Your task to perform on an android device: Open location settings Image 0: 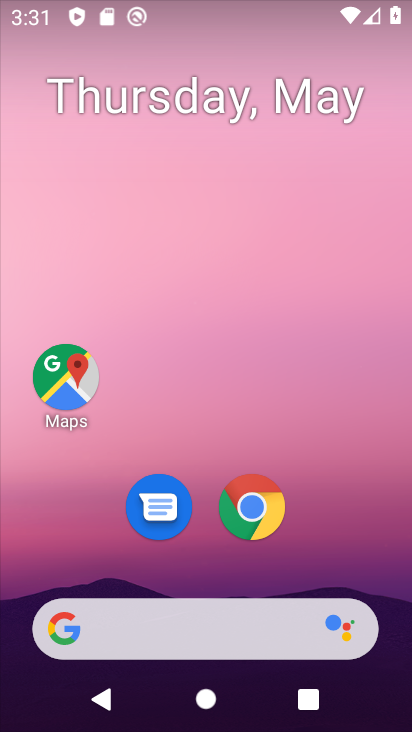
Step 0: drag from (194, 562) to (201, 1)
Your task to perform on an android device: Open location settings Image 1: 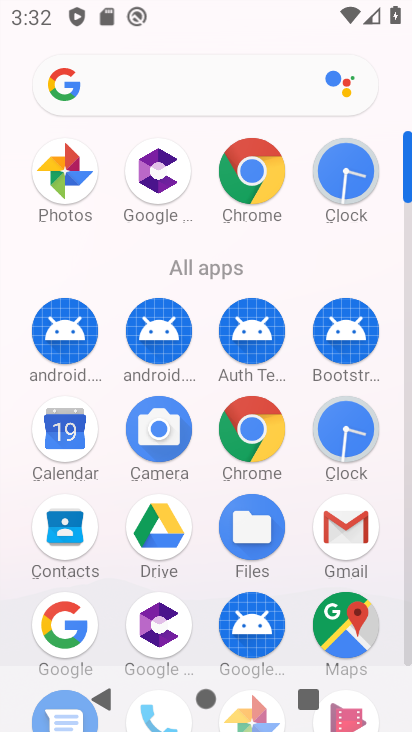
Step 1: drag from (205, 573) to (206, 283)
Your task to perform on an android device: Open location settings Image 2: 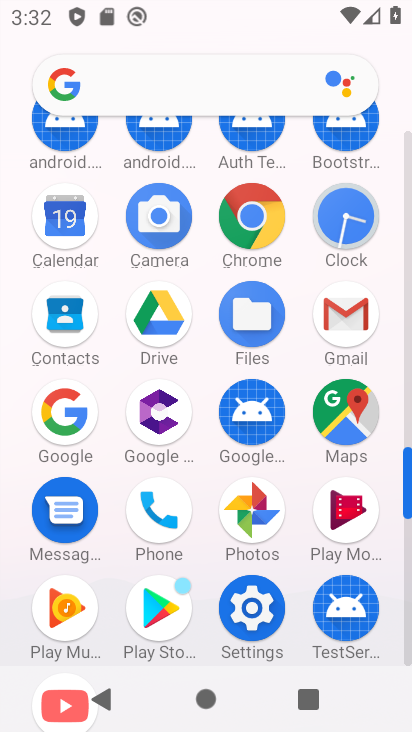
Step 2: click (252, 614)
Your task to perform on an android device: Open location settings Image 3: 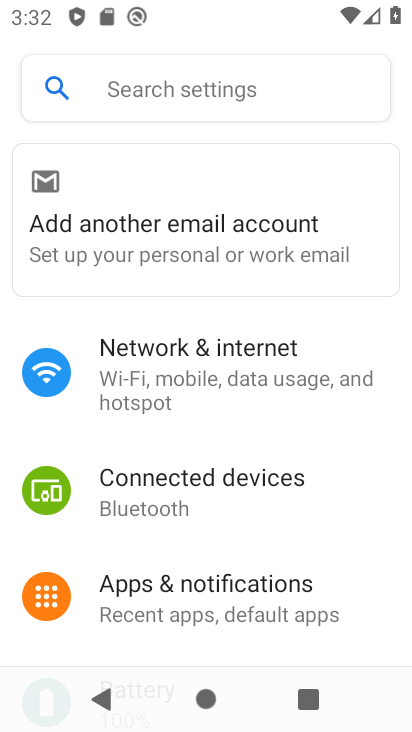
Step 3: drag from (218, 622) to (230, 294)
Your task to perform on an android device: Open location settings Image 4: 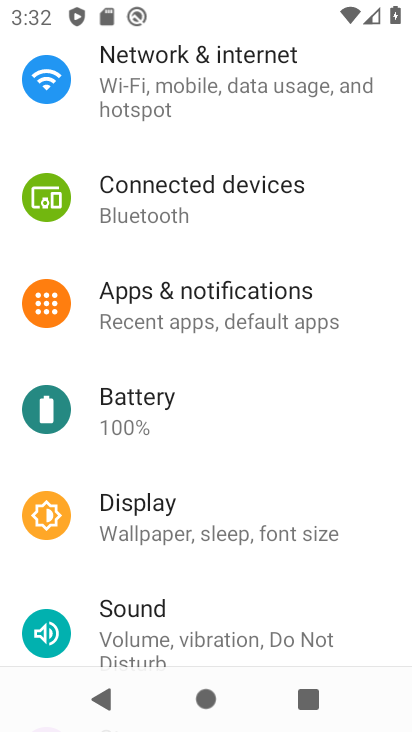
Step 4: drag from (191, 607) to (198, 350)
Your task to perform on an android device: Open location settings Image 5: 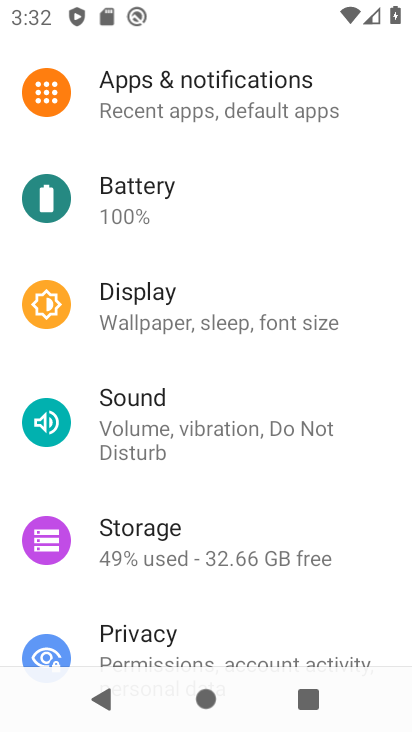
Step 5: drag from (194, 583) to (237, 303)
Your task to perform on an android device: Open location settings Image 6: 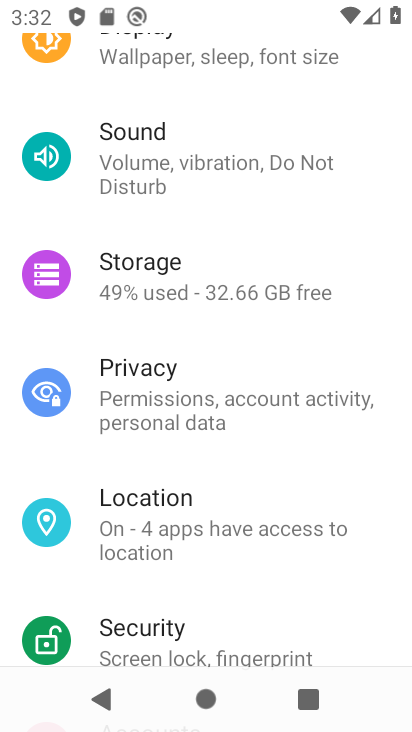
Step 6: click (143, 542)
Your task to perform on an android device: Open location settings Image 7: 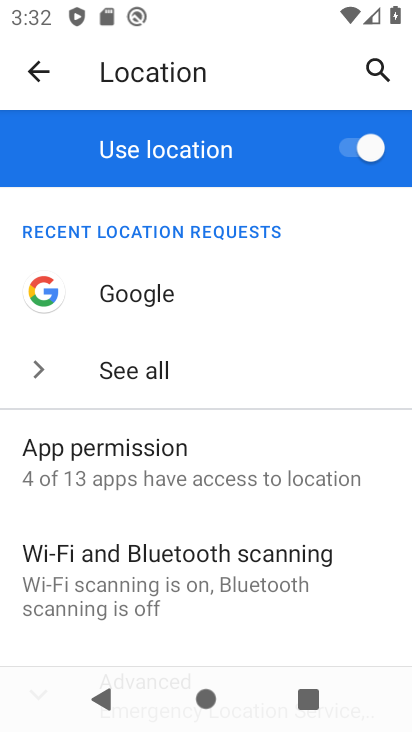
Step 7: task complete